Your task to perform on an android device: all mails in gmail Image 0: 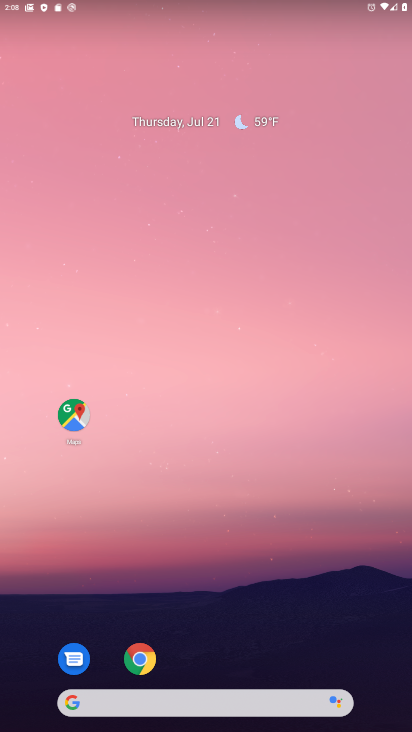
Step 0: drag from (313, 600) to (260, 82)
Your task to perform on an android device: all mails in gmail Image 1: 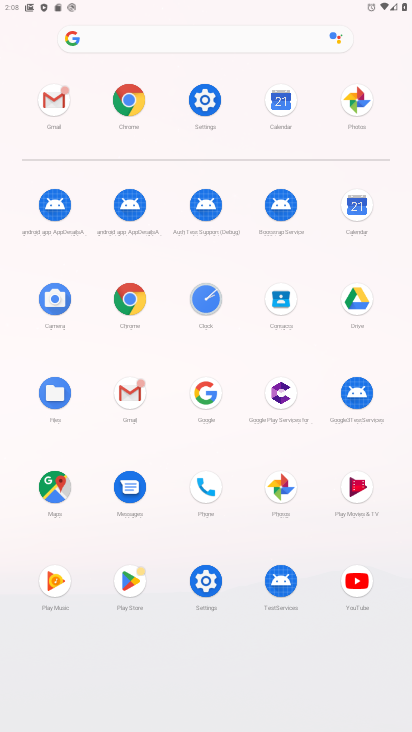
Step 1: click (52, 103)
Your task to perform on an android device: all mails in gmail Image 2: 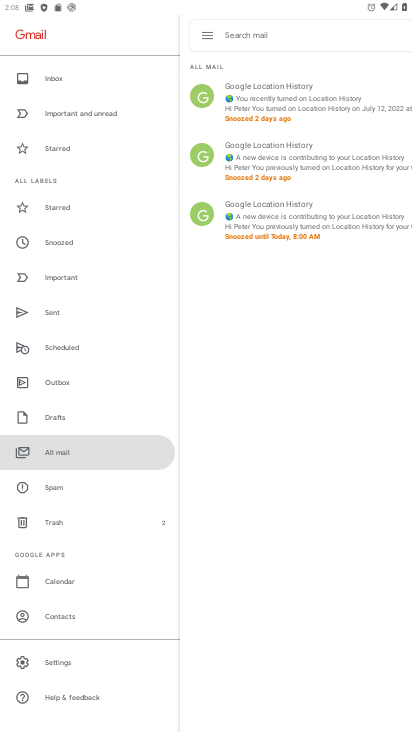
Step 2: task complete